Your task to perform on an android device: open the mobile data screen to see how much data has been used Image 0: 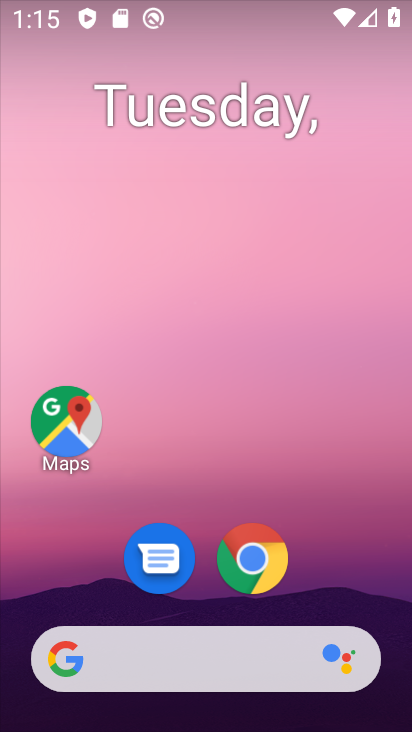
Step 0: drag from (194, 584) to (363, 84)
Your task to perform on an android device: open the mobile data screen to see how much data has been used Image 1: 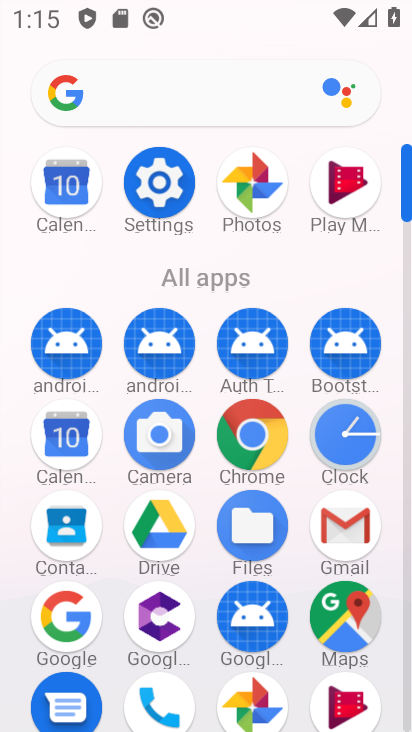
Step 1: click (142, 179)
Your task to perform on an android device: open the mobile data screen to see how much data has been used Image 2: 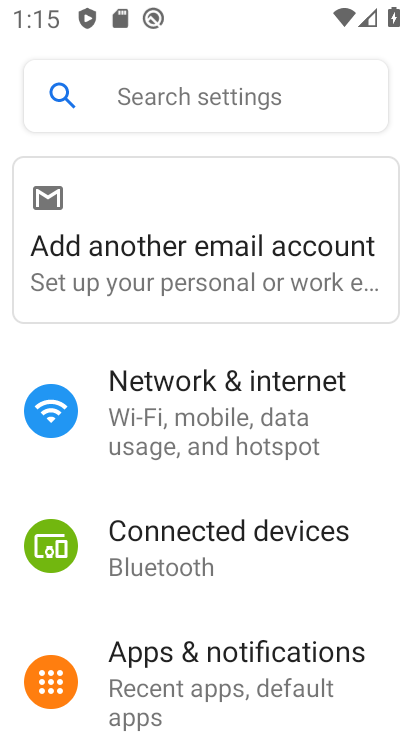
Step 2: click (208, 437)
Your task to perform on an android device: open the mobile data screen to see how much data has been used Image 3: 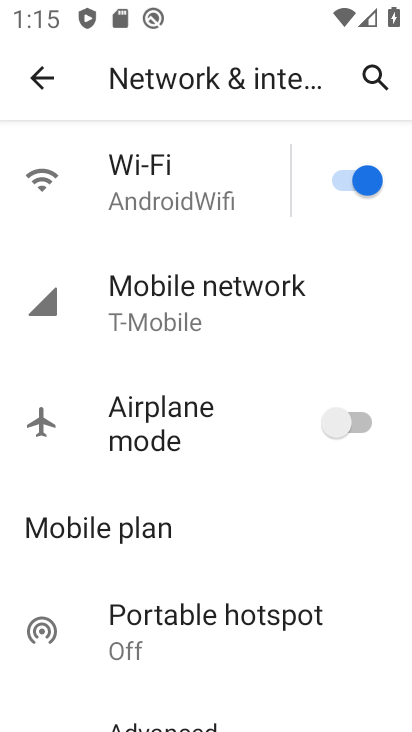
Step 3: click (158, 309)
Your task to perform on an android device: open the mobile data screen to see how much data has been used Image 4: 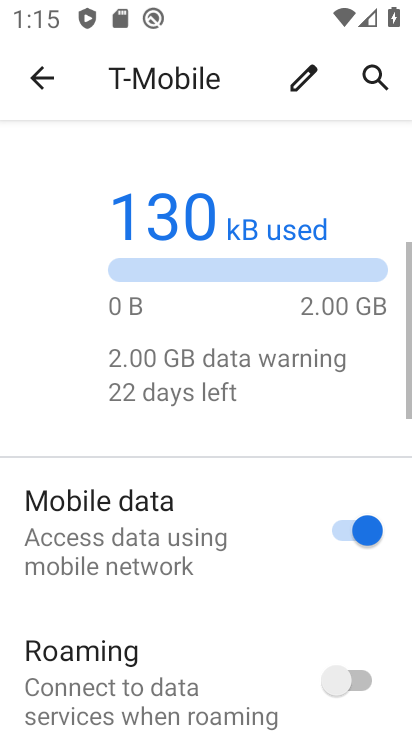
Step 4: drag from (137, 645) to (306, 121)
Your task to perform on an android device: open the mobile data screen to see how much data has been used Image 5: 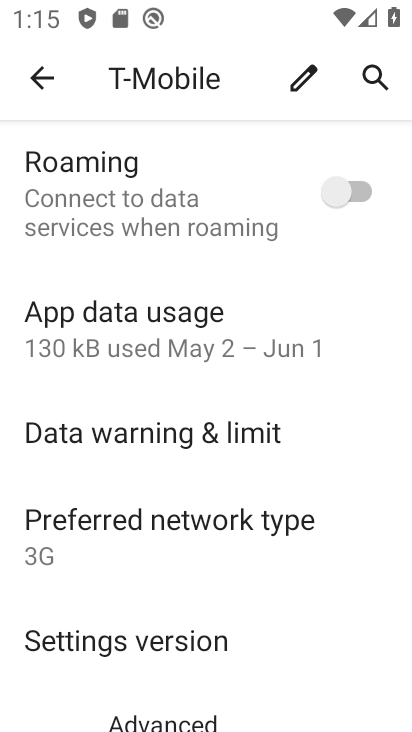
Step 5: click (201, 337)
Your task to perform on an android device: open the mobile data screen to see how much data has been used Image 6: 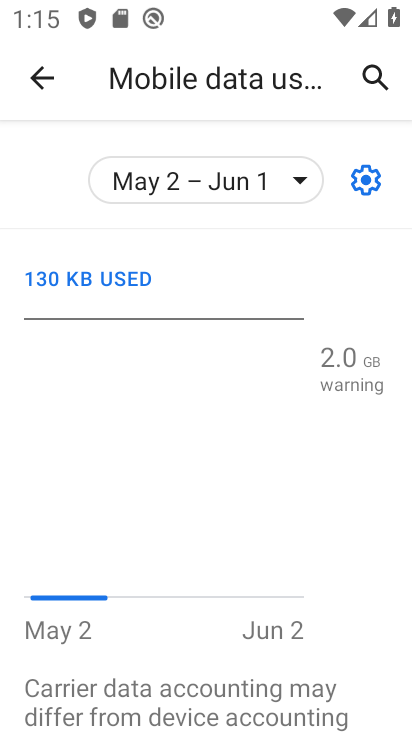
Step 6: task complete